Your task to perform on an android device: Go to CNN.com Image 0: 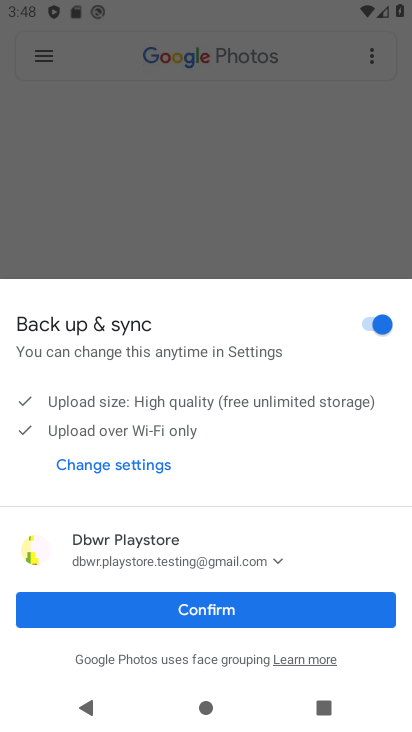
Step 0: press home button
Your task to perform on an android device: Go to CNN.com Image 1: 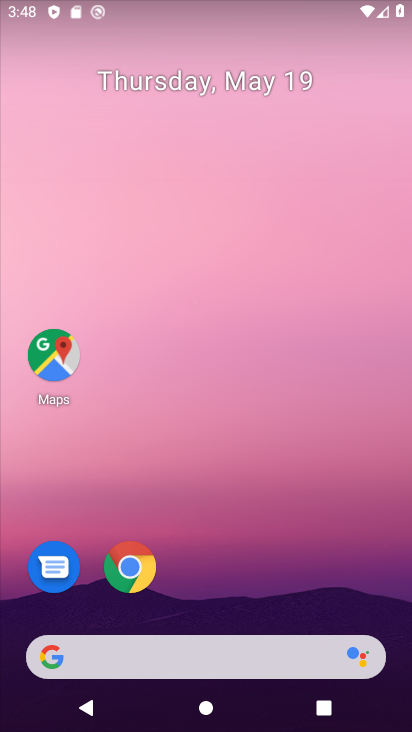
Step 1: click (138, 569)
Your task to perform on an android device: Go to CNN.com Image 2: 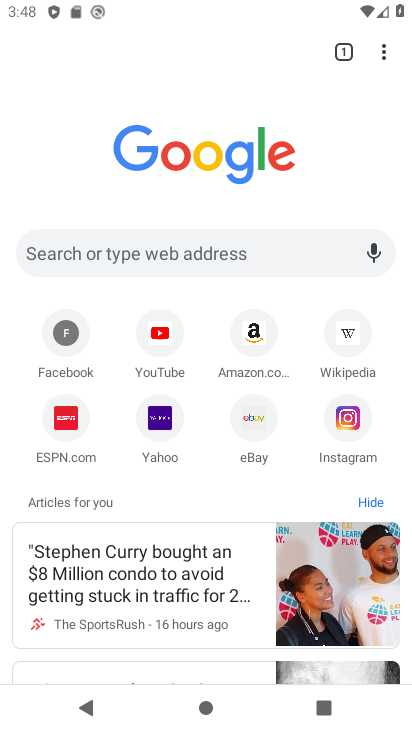
Step 2: click (163, 248)
Your task to perform on an android device: Go to CNN.com Image 3: 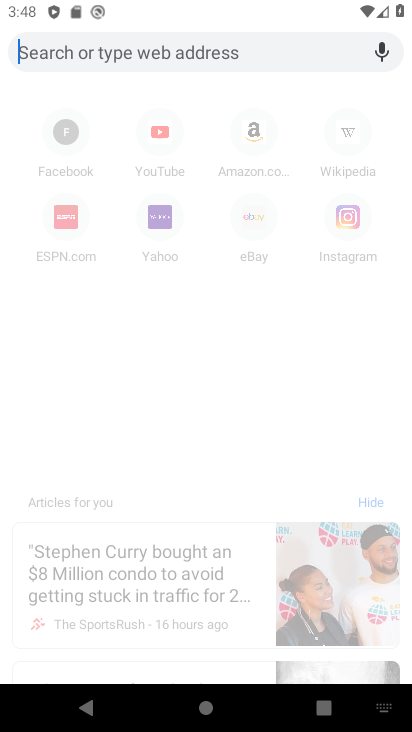
Step 3: type "www.cnn.com"
Your task to perform on an android device: Go to CNN.com Image 4: 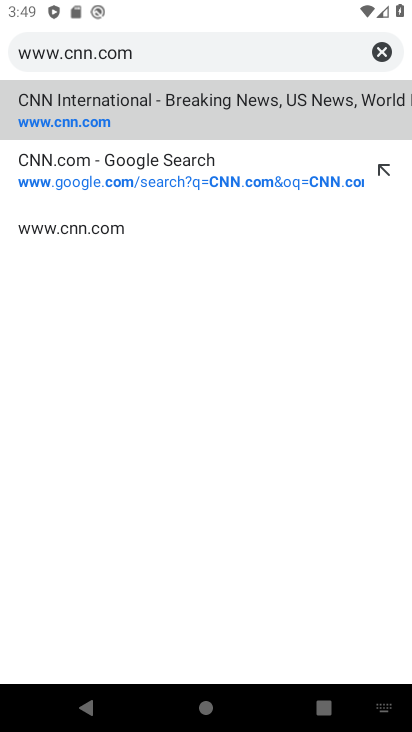
Step 4: click (32, 116)
Your task to perform on an android device: Go to CNN.com Image 5: 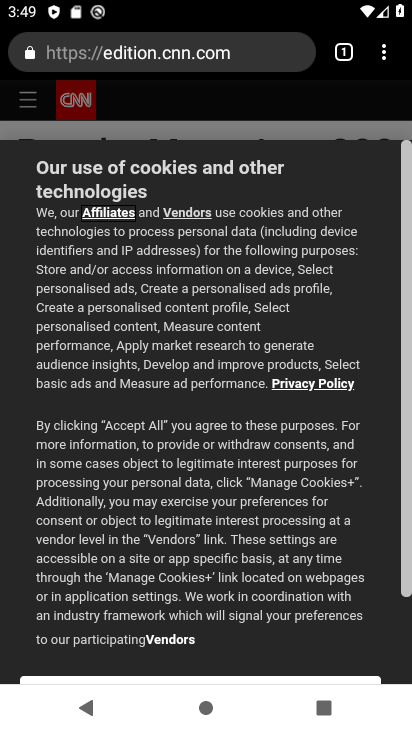
Step 5: task complete